Your task to perform on an android device: open chrome and create a bookmark for the current page Image 0: 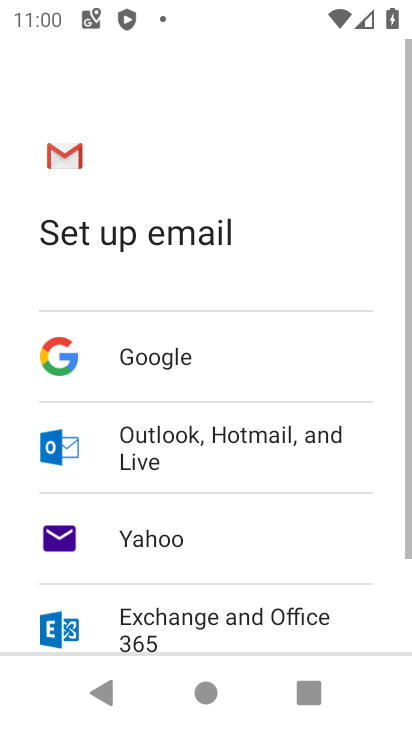
Step 0: press home button
Your task to perform on an android device: open chrome and create a bookmark for the current page Image 1: 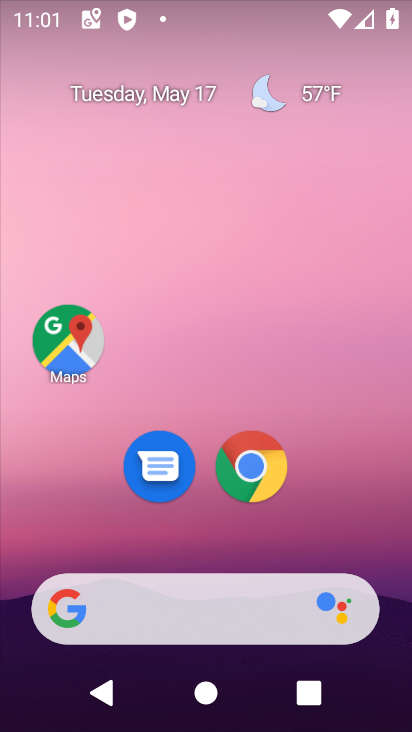
Step 1: drag from (231, 546) to (370, 53)
Your task to perform on an android device: open chrome and create a bookmark for the current page Image 2: 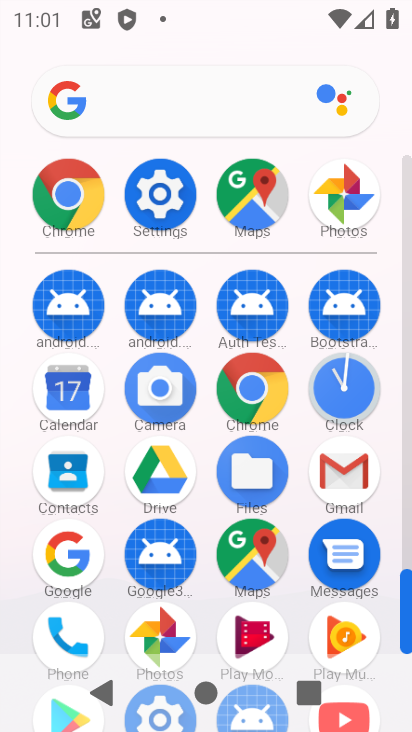
Step 2: click (251, 403)
Your task to perform on an android device: open chrome and create a bookmark for the current page Image 3: 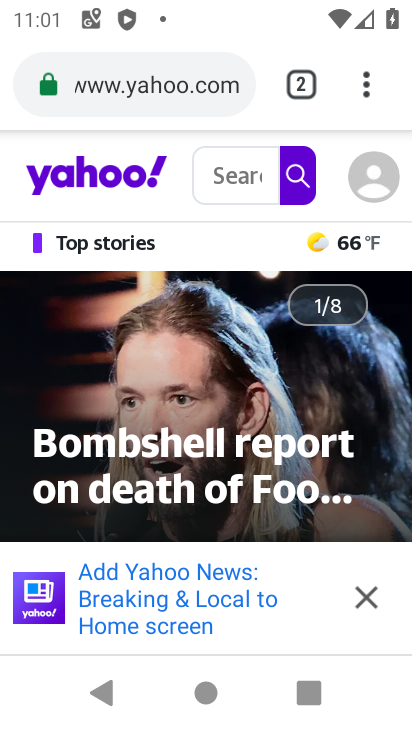
Step 3: click (353, 88)
Your task to perform on an android device: open chrome and create a bookmark for the current page Image 4: 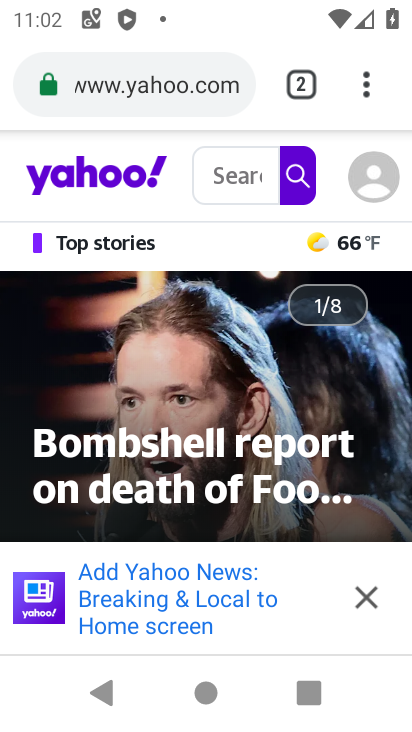
Step 4: task complete